Your task to perform on an android device: Go to CNN.com Image 0: 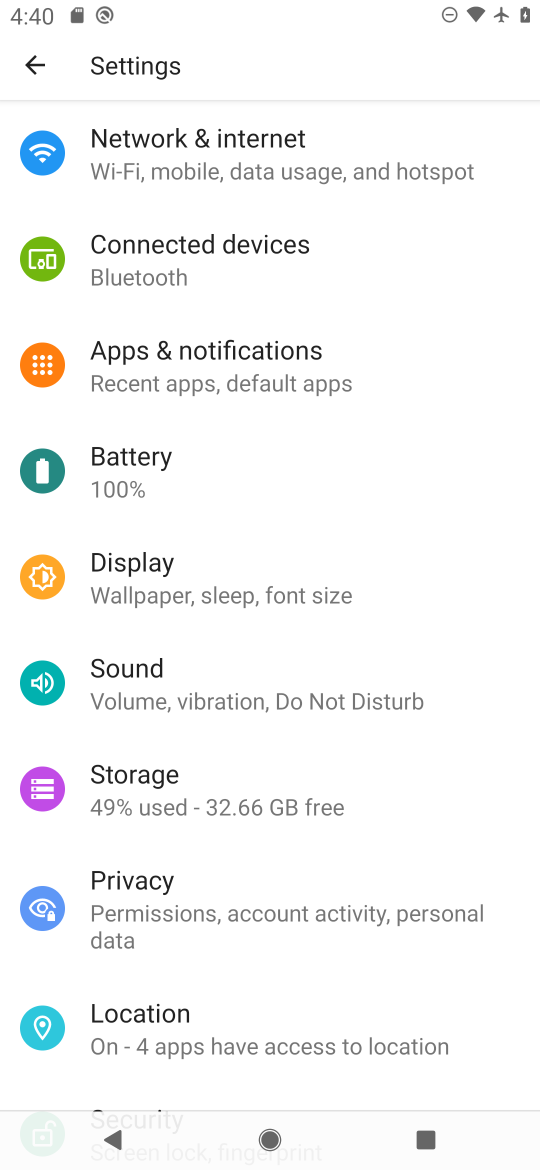
Step 0: press home button
Your task to perform on an android device: Go to CNN.com Image 1: 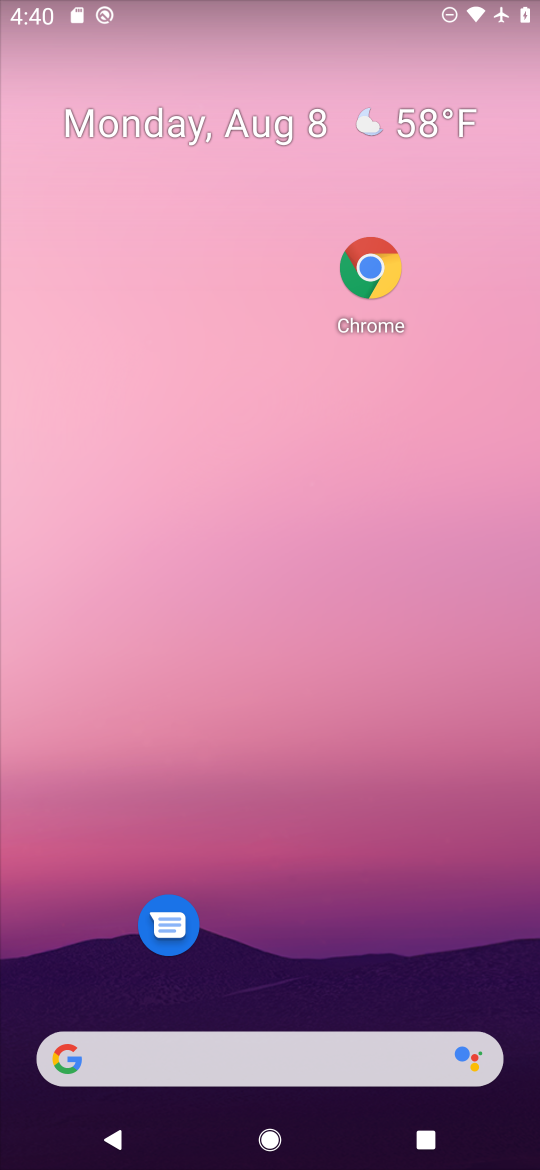
Step 1: drag from (293, 1022) to (289, 113)
Your task to perform on an android device: Go to CNN.com Image 2: 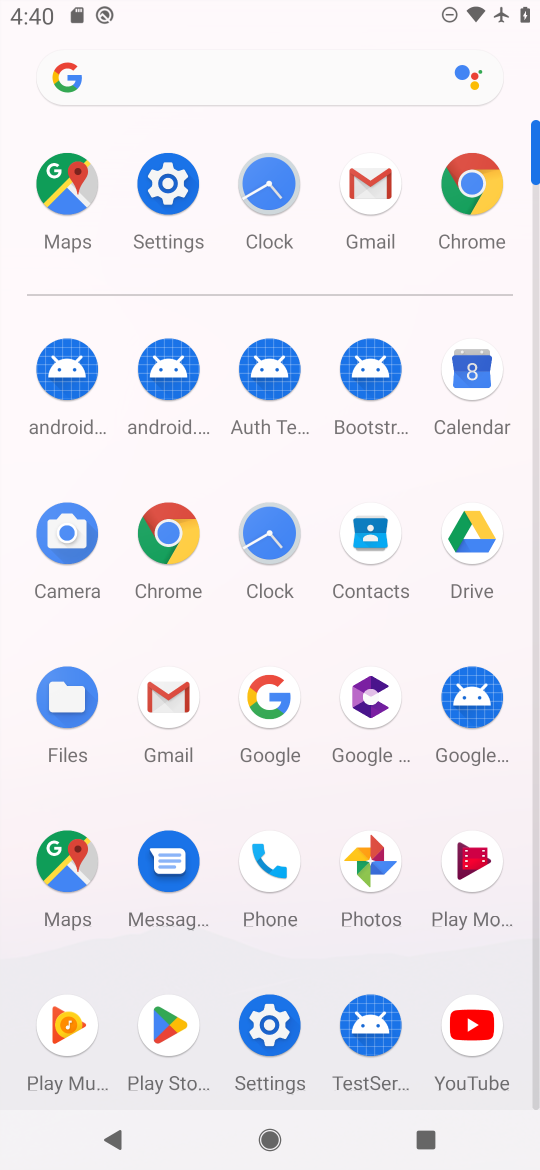
Step 2: click (480, 193)
Your task to perform on an android device: Go to CNN.com Image 3: 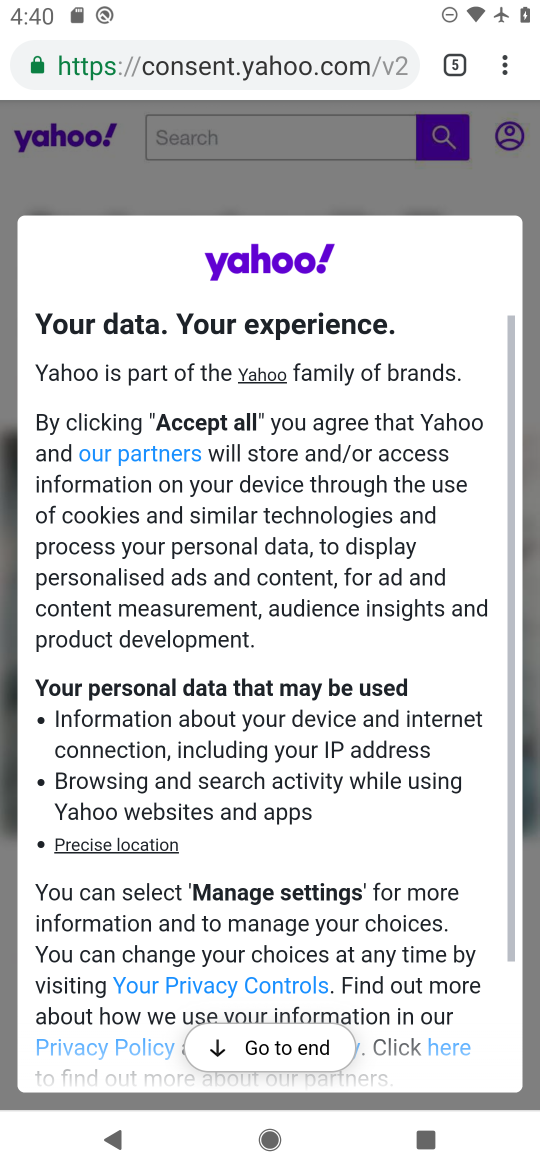
Step 3: click (507, 72)
Your task to perform on an android device: Go to CNN.com Image 4: 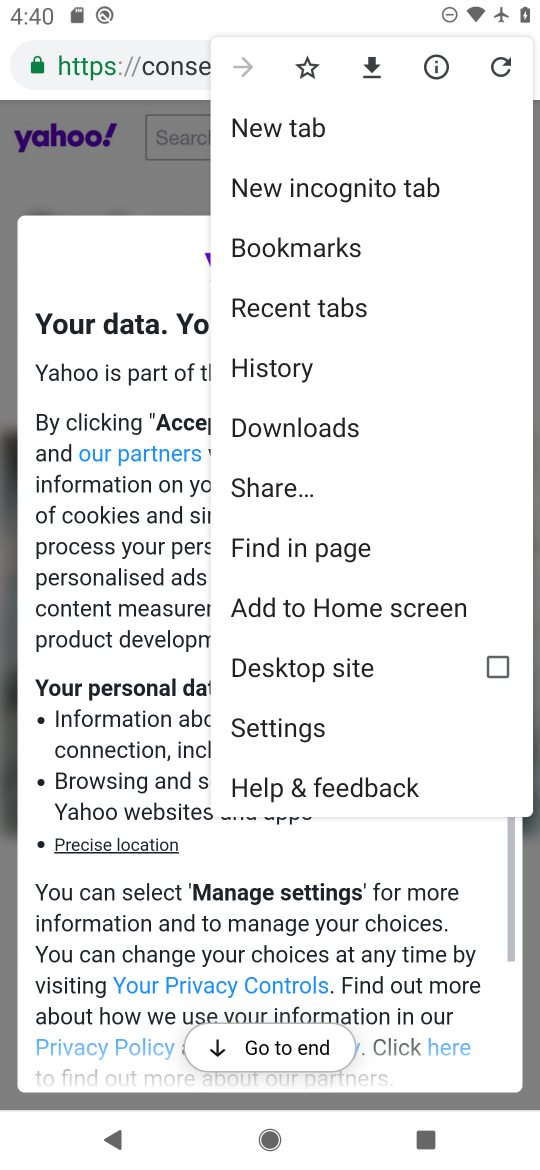
Step 4: click (294, 125)
Your task to perform on an android device: Go to CNN.com Image 5: 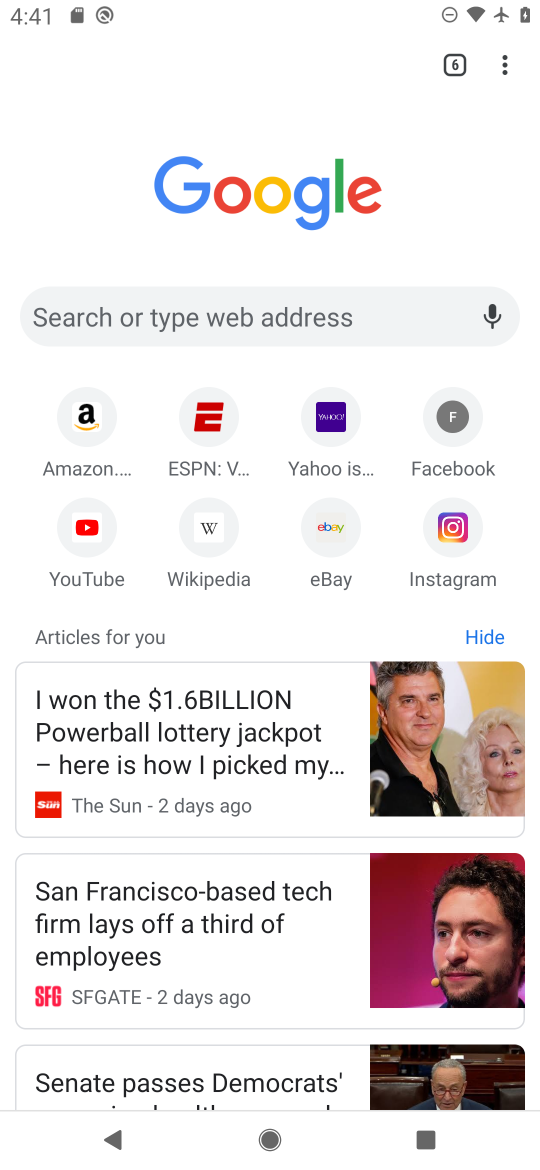
Step 5: click (348, 304)
Your task to perform on an android device: Go to CNN.com Image 6: 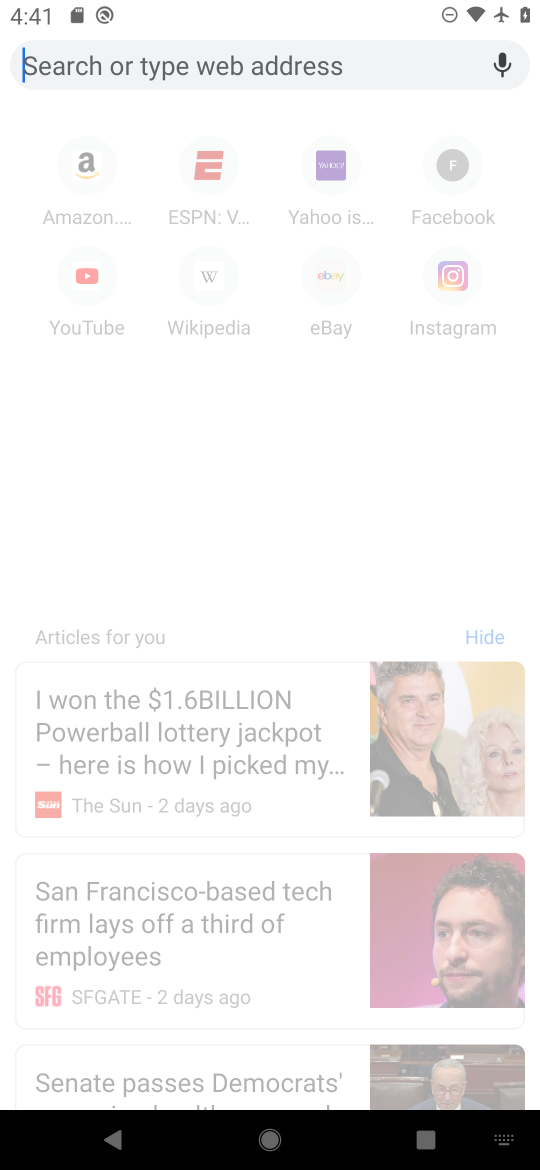
Step 6: type "CNN.com"
Your task to perform on an android device: Go to CNN.com Image 7: 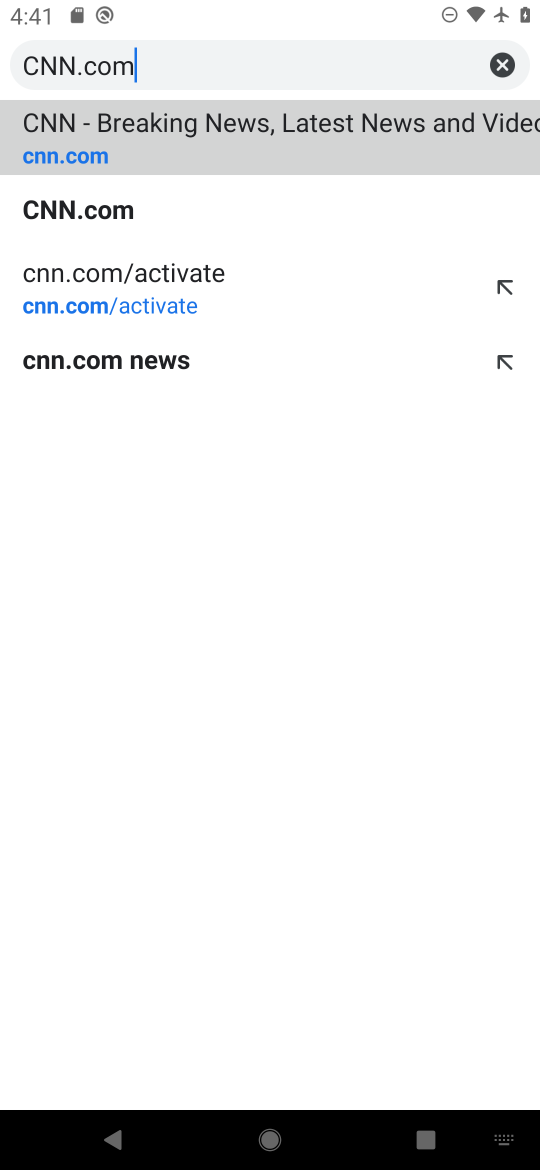
Step 7: click (73, 150)
Your task to perform on an android device: Go to CNN.com Image 8: 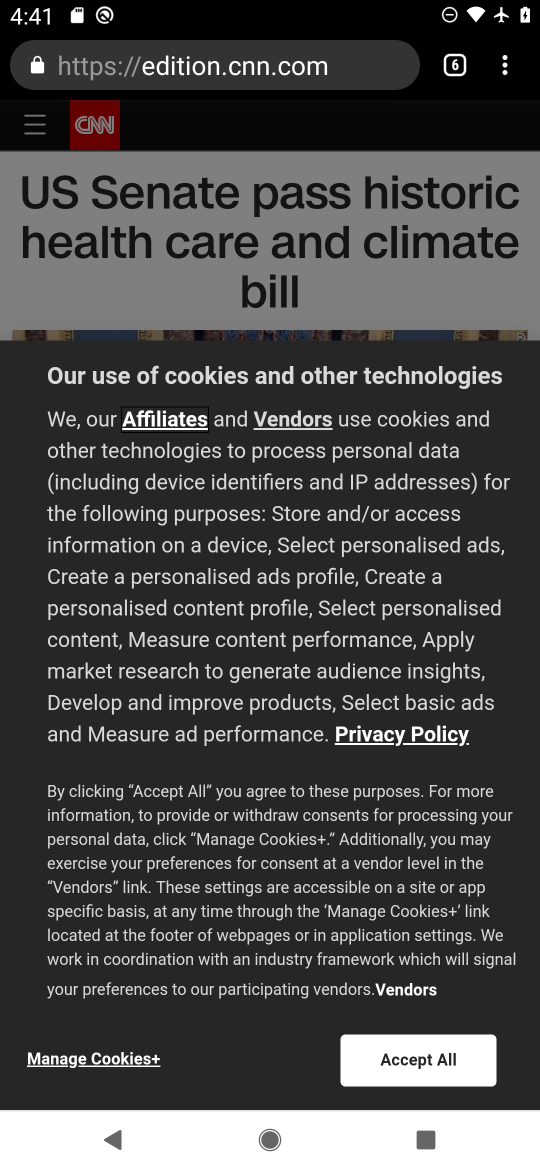
Step 8: task complete